Your task to perform on an android device: search for starred emails in the gmail app Image 0: 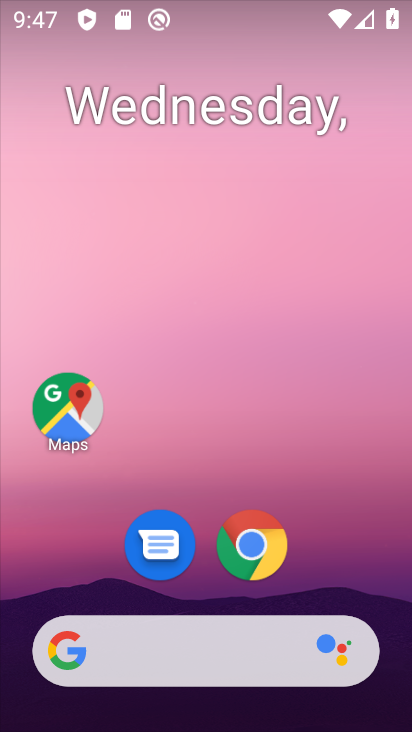
Step 0: drag from (353, 543) to (328, 104)
Your task to perform on an android device: search for starred emails in the gmail app Image 1: 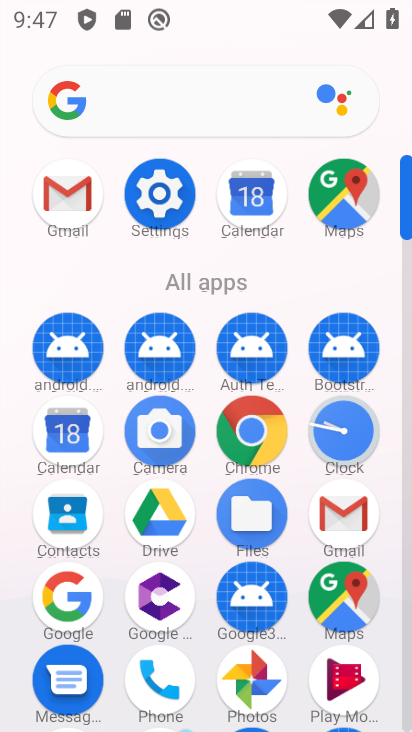
Step 1: click (77, 195)
Your task to perform on an android device: search for starred emails in the gmail app Image 2: 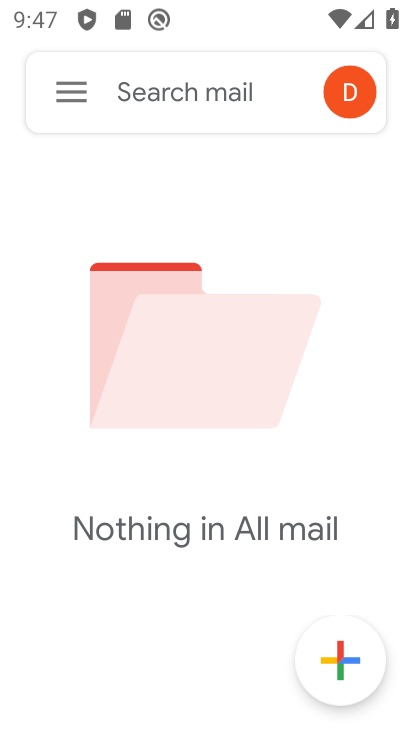
Step 2: click (82, 84)
Your task to perform on an android device: search for starred emails in the gmail app Image 3: 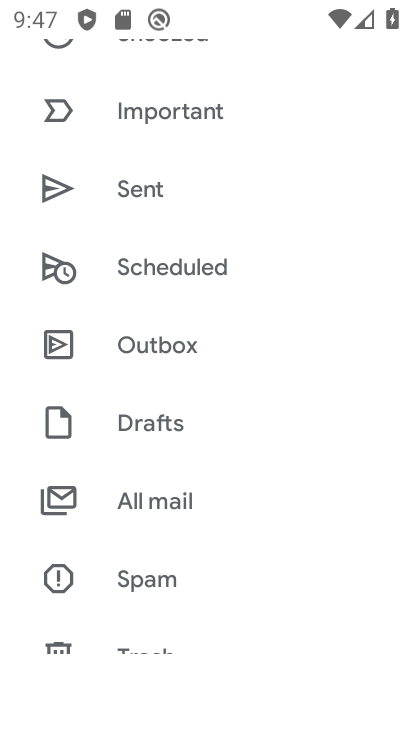
Step 3: drag from (187, 221) to (212, 527)
Your task to perform on an android device: search for starred emails in the gmail app Image 4: 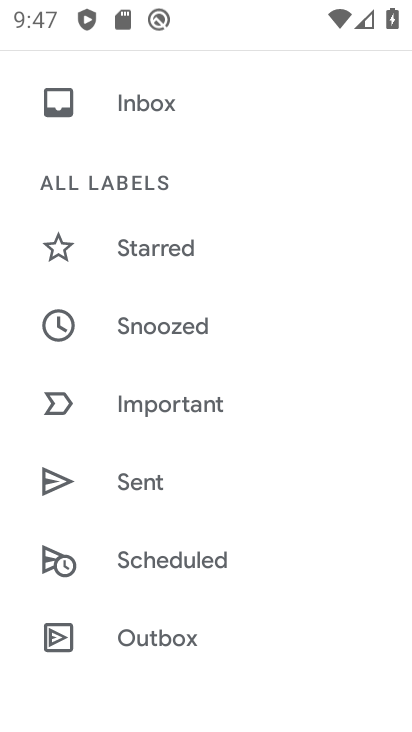
Step 4: click (172, 253)
Your task to perform on an android device: search for starred emails in the gmail app Image 5: 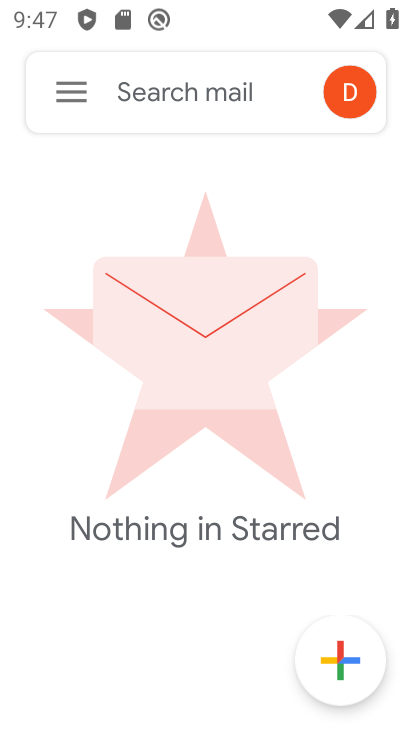
Step 5: task complete